Your task to perform on an android device: Search for "razer blackwidow" on newegg, select the first entry, add it to the cart, then select checkout. Image 0: 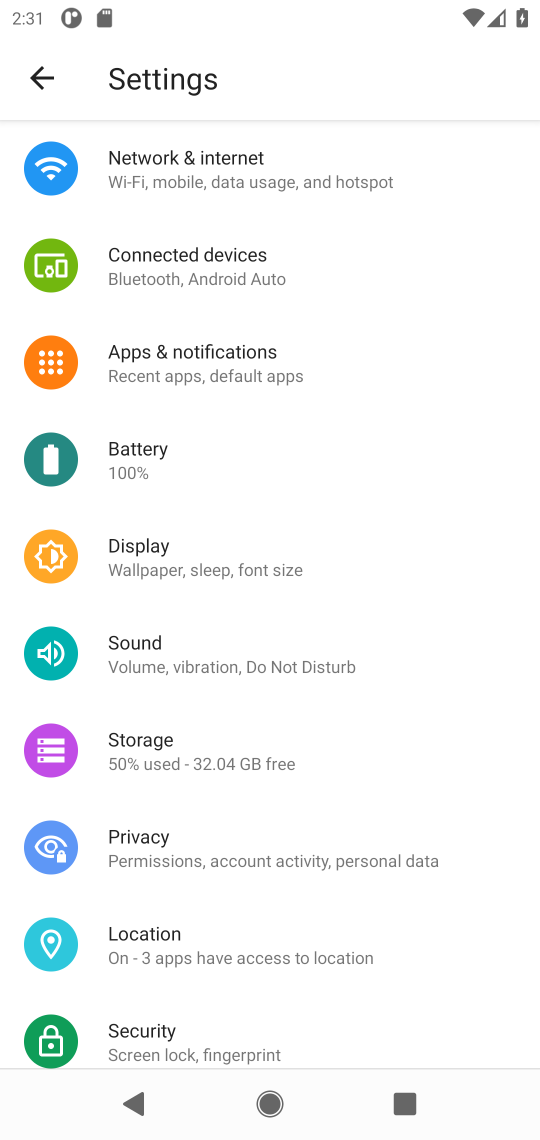
Step 0: press home button
Your task to perform on an android device: Search for "razer blackwidow" on newegg, select the first entry, add it to the cart, then select checkout. Image 1: 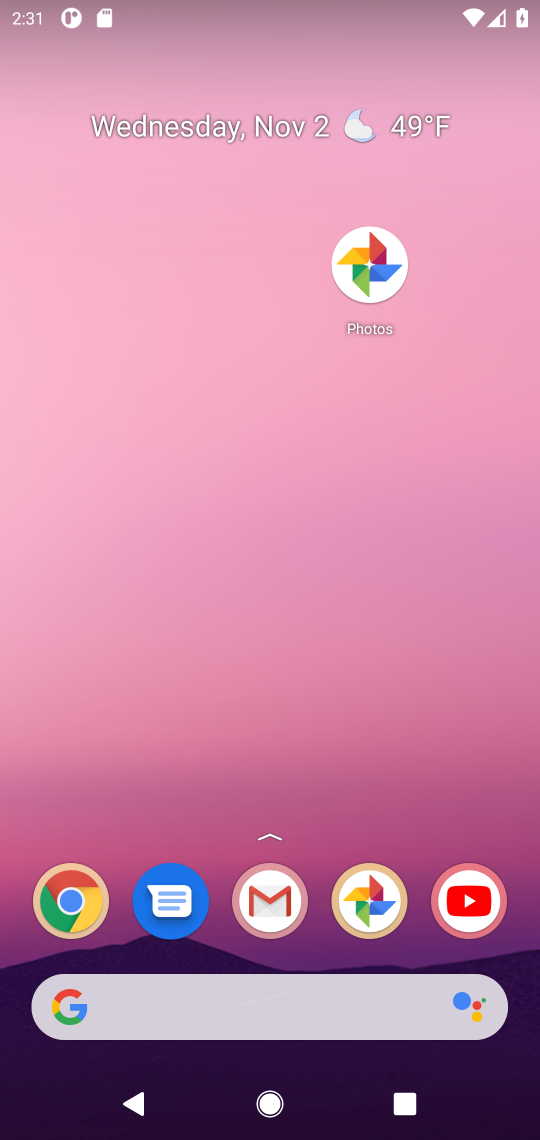
Step 1: drag from (329, 792) to (400, 202)
Your task to perform on an android device: Search for "razer blackwidow" on newegg, select the first entry, add it to the cart, then select checkout. Image 2: 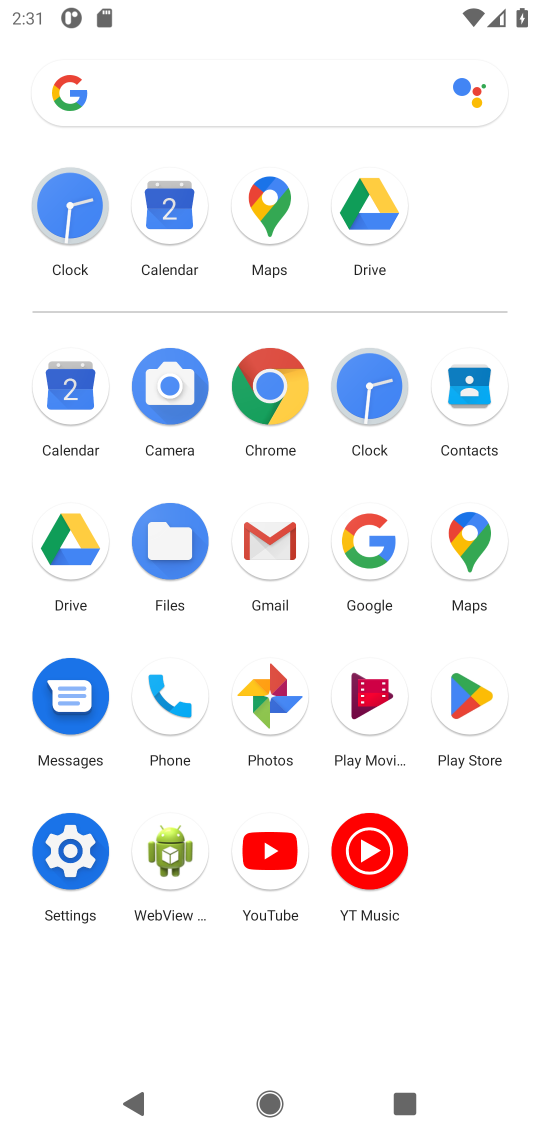
Step 2: click (276, 390)
Your task to perform on an android device: Search for "razer blackwidow" on newegg, select the first entry, add it to the cart, then select checkout. Image 3: 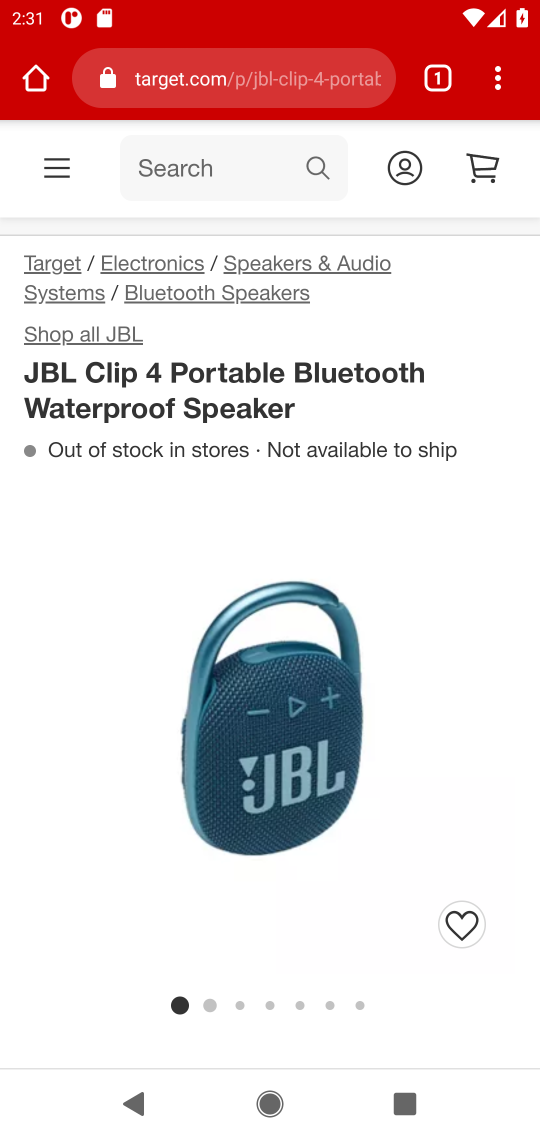
Step 3: click (265, 81)
Your task to perform on an android device: Search for "razer blackwidow" on newegg, select the first entry, add it to the cart, then select checkout. Image 4: 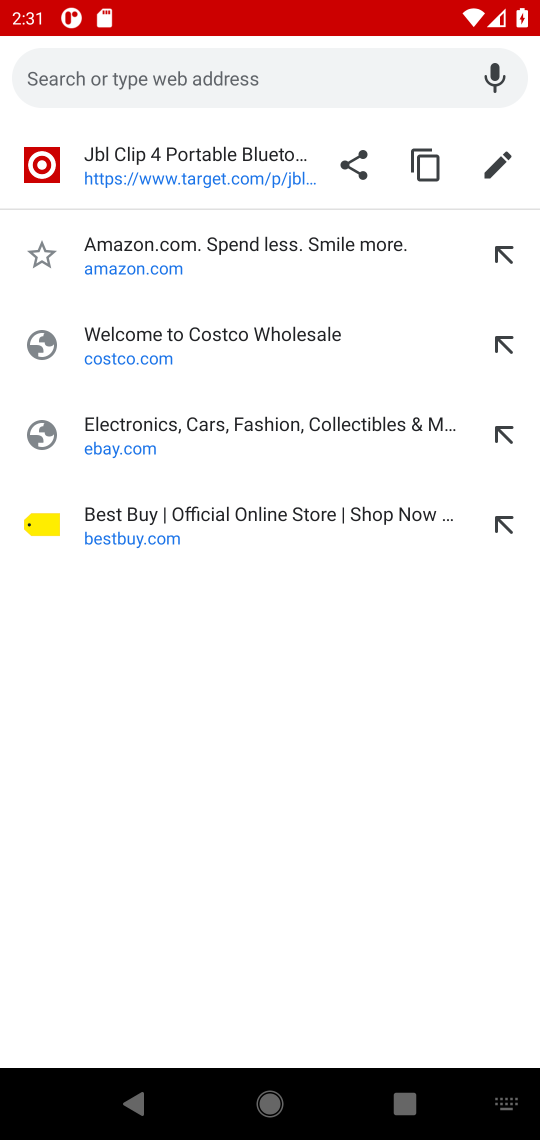
Step 4: type "newegg.com"
Your task to perform on an android device: Search for "razer blackwidow" on newegg, select the first entry, add it to the cart, then select checkout. Image 5: 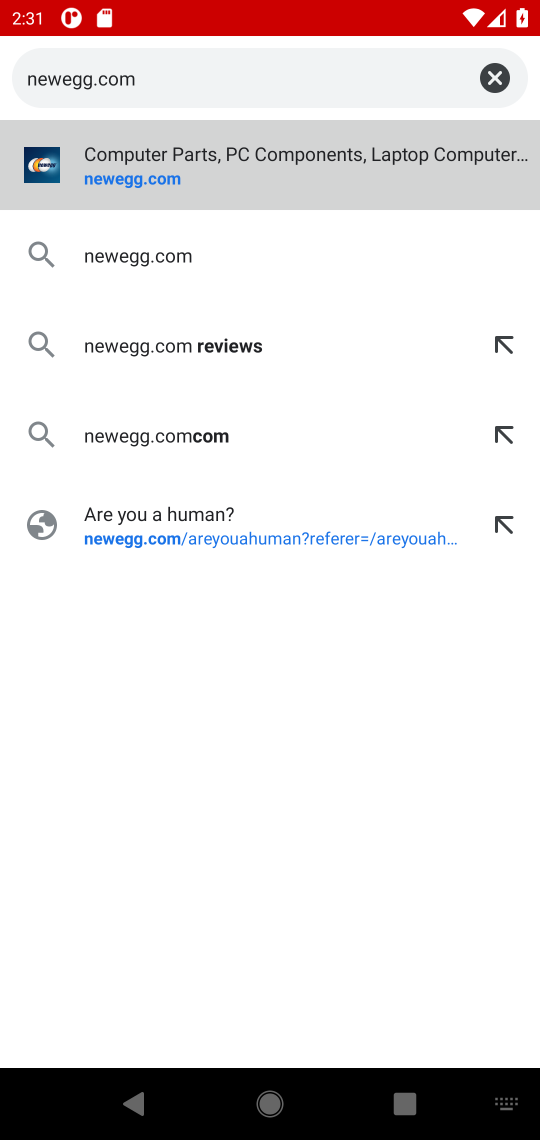
Step 5: press enter
Your task to perform on an android device: Search for "razer blackwidow" on newegg, select the first entry, add it to the cart, then select checkout. Image 6: 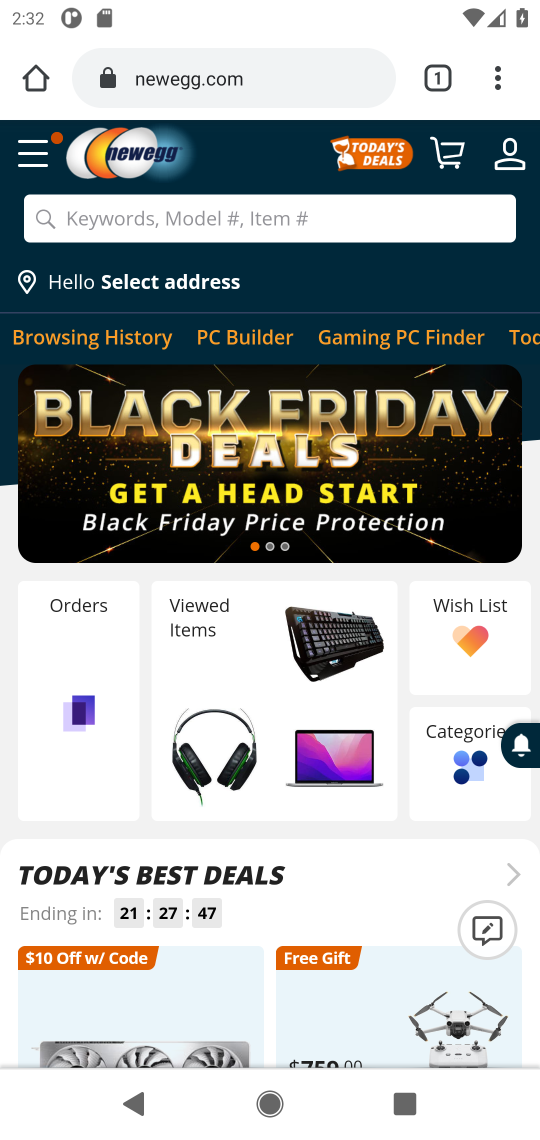
Step 6: click (389, 226)
Your task to perform on an android device: Search for "razer blackwidow" on newegg, select the first entry, add it to the cart, then select checkout. Image 7: 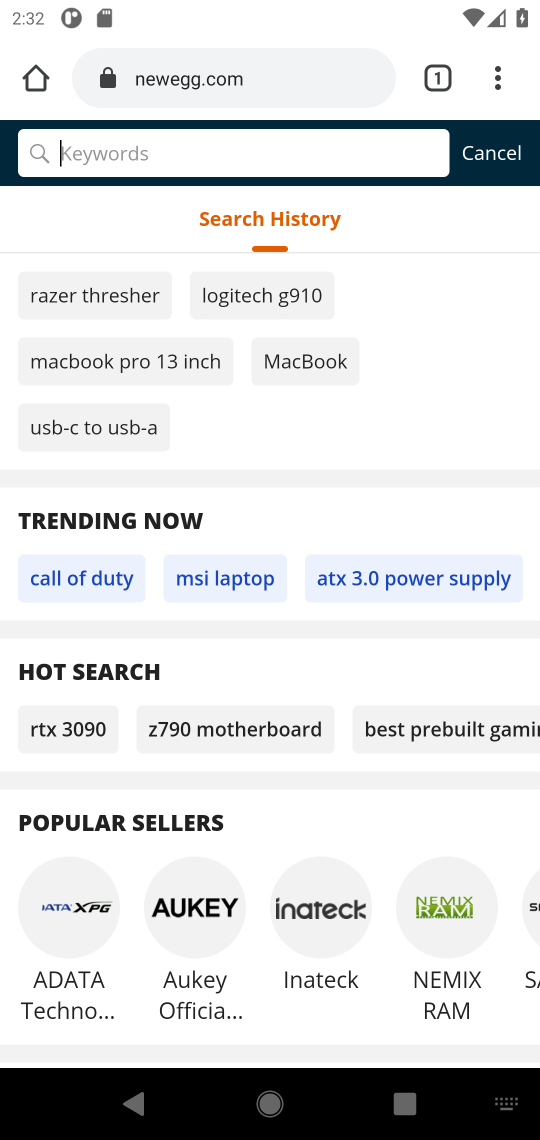
Step 7: type "razer blackwidow"
Your task to perform on an android device: Search for "razer blackwidow" on newegg, select the first entry, add it to the cart, then select checkout. Image 8: 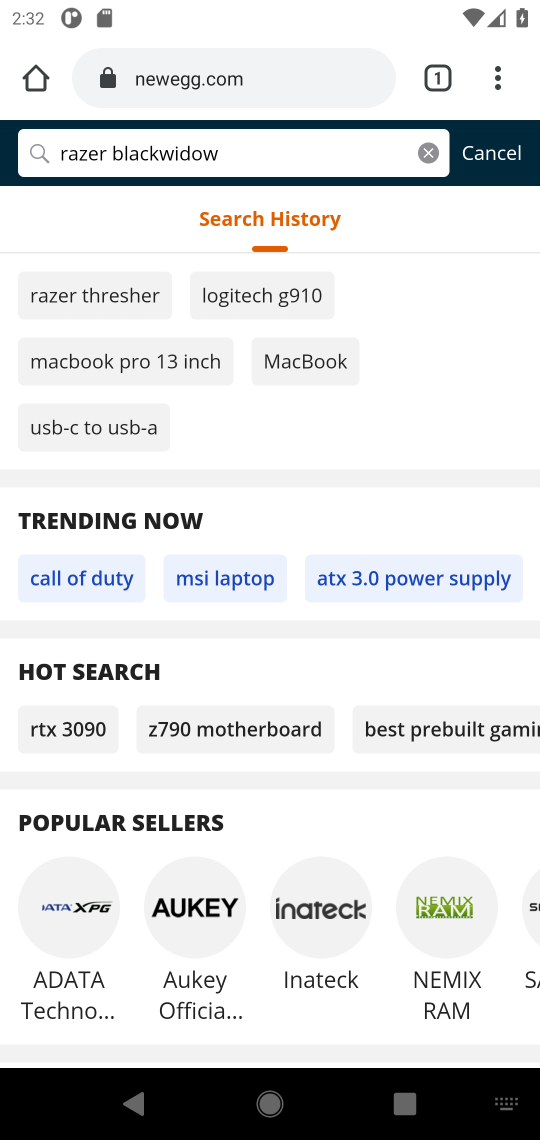
Step 8: press enter
Your task to perform on an android device: Search for "razer blackwidow" on newegg, select the first entry, add it to the cart, then select checkout. Image 9: 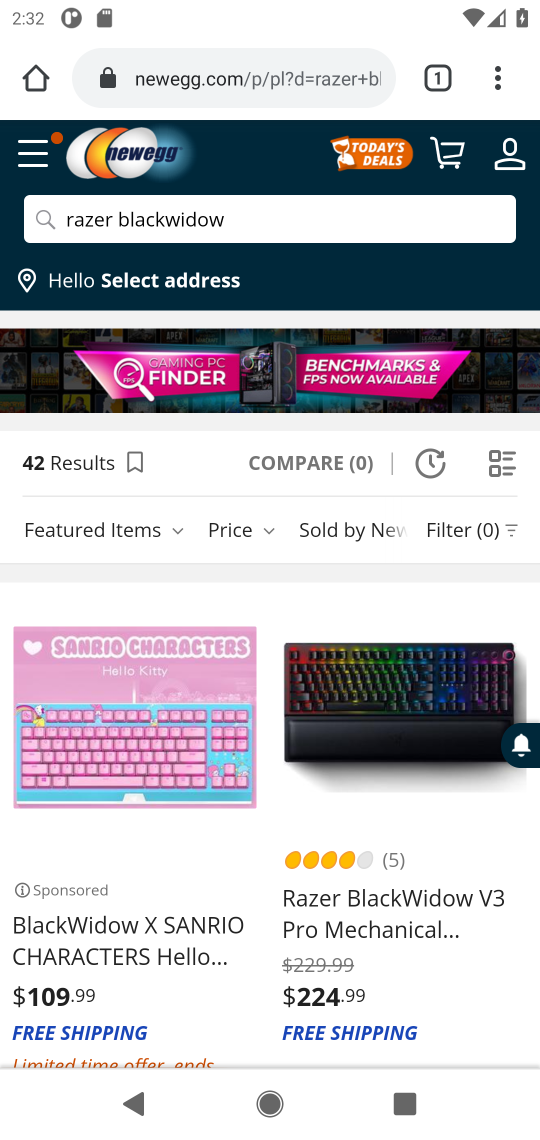
Step 9: click (416, 729)
Your task to perform on an android device: Search for "razer blackwidow" on newegg, select the first entry, add it to the cart, then select checkout. Image 10: 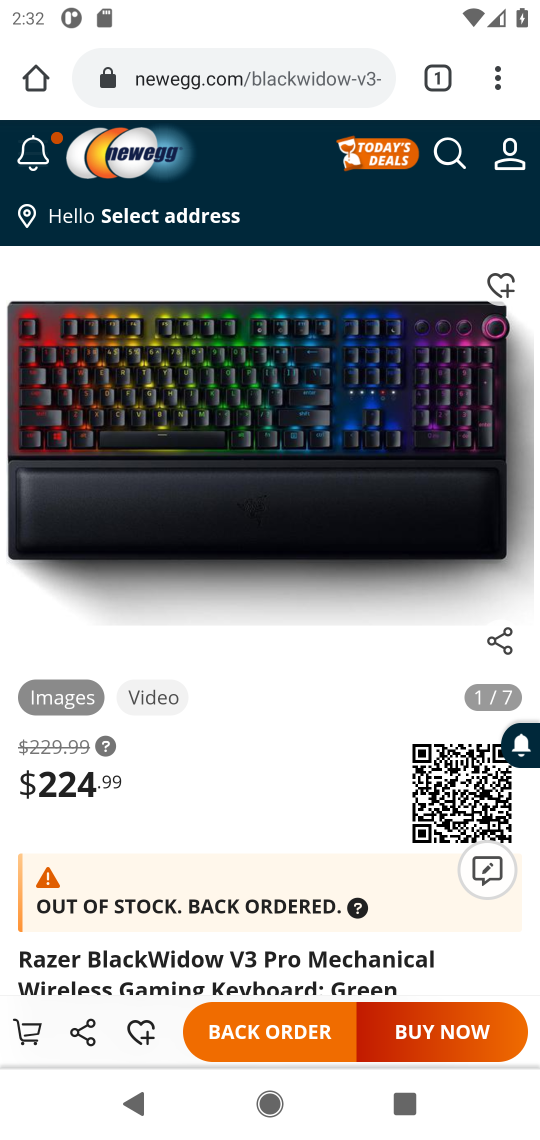
Step 10: task complete